Your task to perform on an android device: Go to Amazon Image 0: 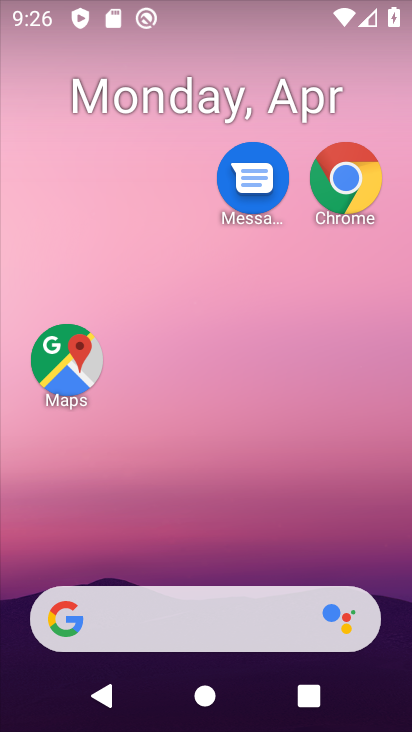
Step 0: click (260, 70)
Your task to perform on an android device: Go to Amazon Image 1: 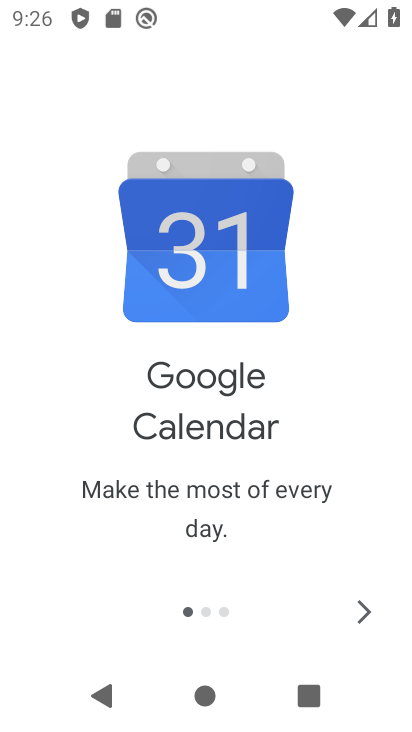
Step 1: click (371, 631)
Your task to perform on an android device: Go to Amazon Image 2: 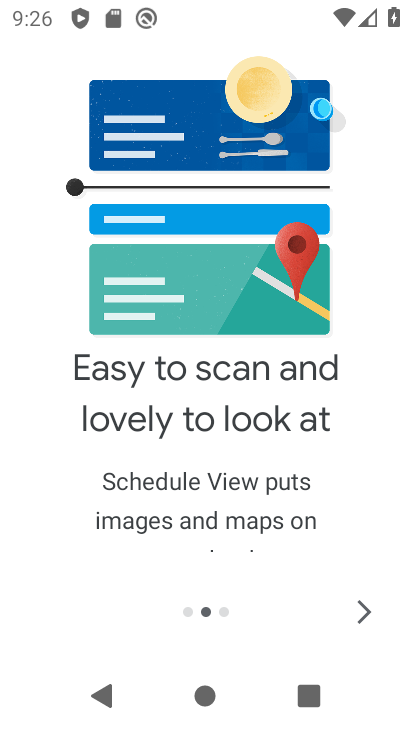
Step 2: click (371, 631)
Your task to perform on an android device: Go to Amazon Image 3: 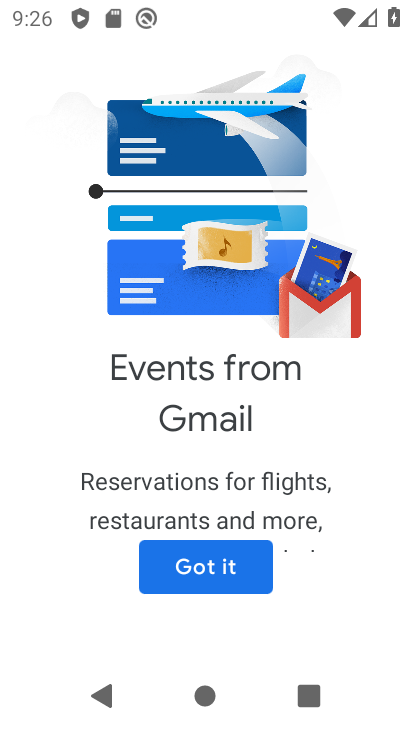
Step 3: click (169, 566)
Your task to perform on an android device: Go to Amazon Image 4: 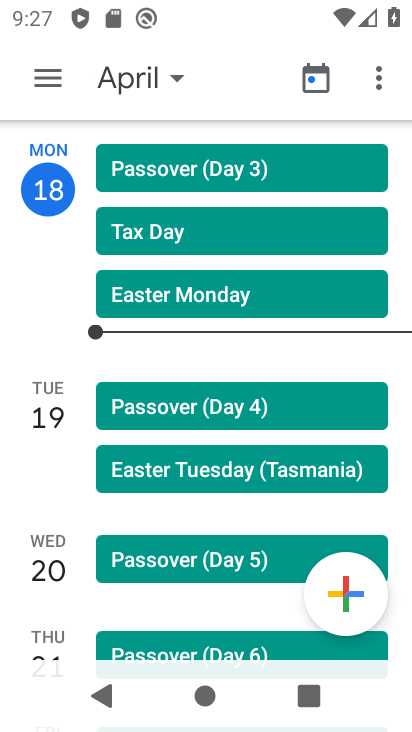
Step 4: press home button
Your task to perform on an android device: Go to Amazon Image 5: 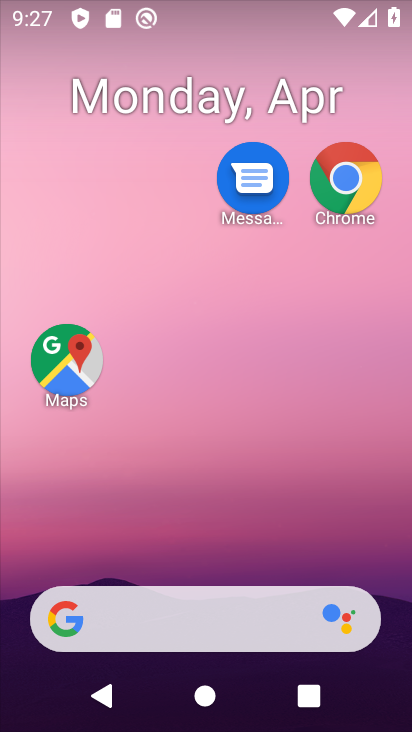
Step 5: drag from (326, 470) to (348, 113)
Your task to perform on an android device: Go to Amazon Image 6: 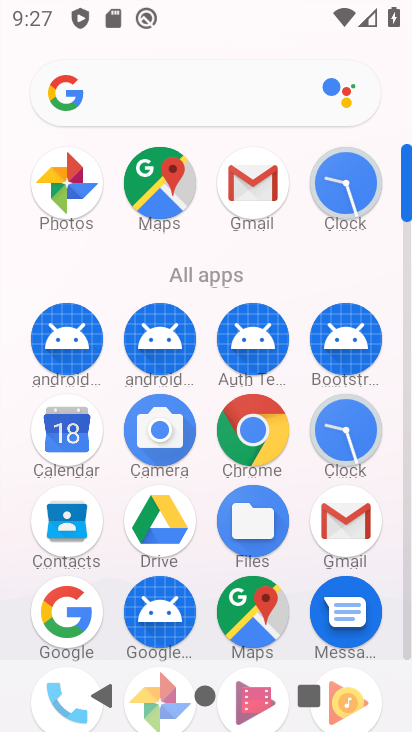
Step 6: drag from (321, 519) to (342, 389)
Your task to perform on an android device: Go to Amazon Image 7: 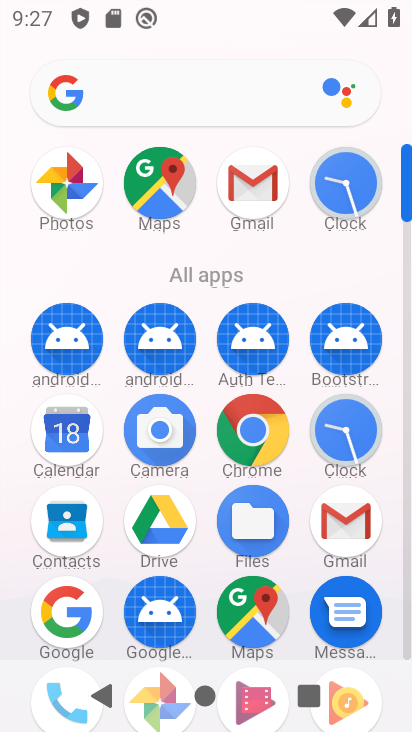
Step 7: click (278, 457)
Your task to perform on an android device: Go to Amazon Image 8: 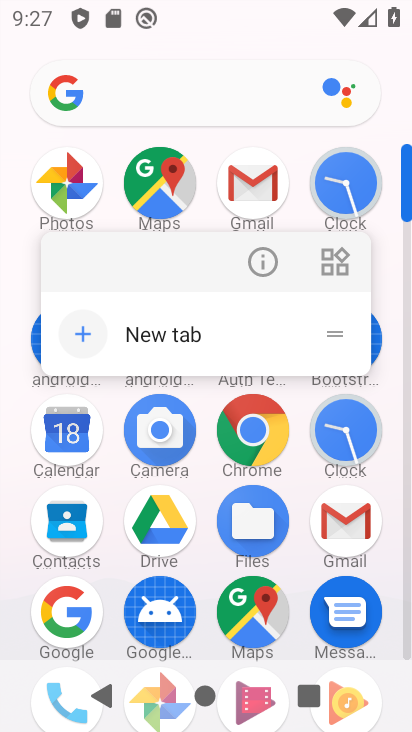
Step 8: click (251, 427)
Your task to perform on an android device: Go to Amazon Image 9: 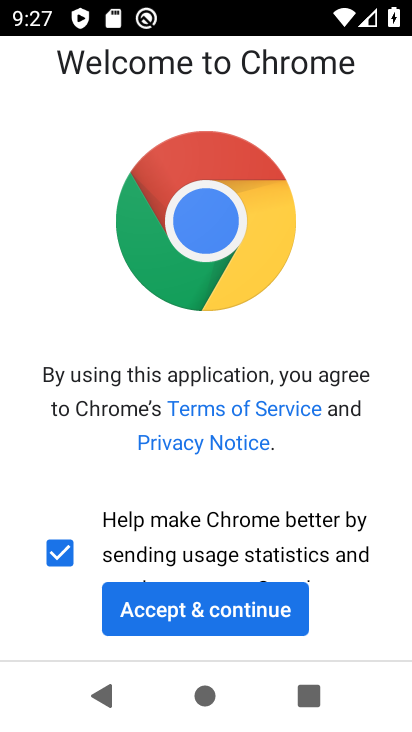
Step 9: click (213, 617)
Your task to perform on an android device: Go to Amazon Image 10: 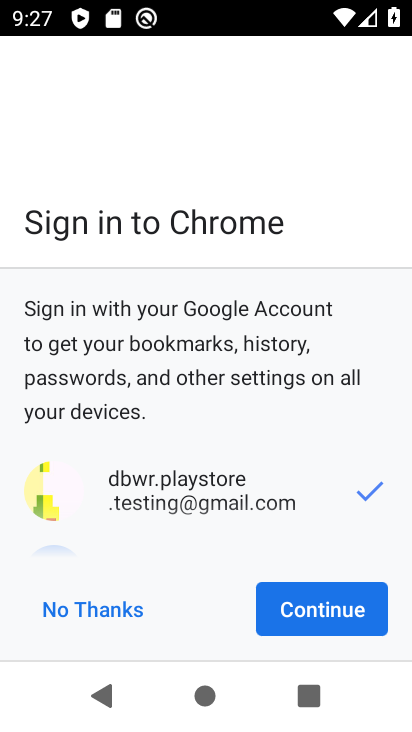
Step 10: click (351, 603)
Your task to perform on an android device: Go to Amazon Image 11: 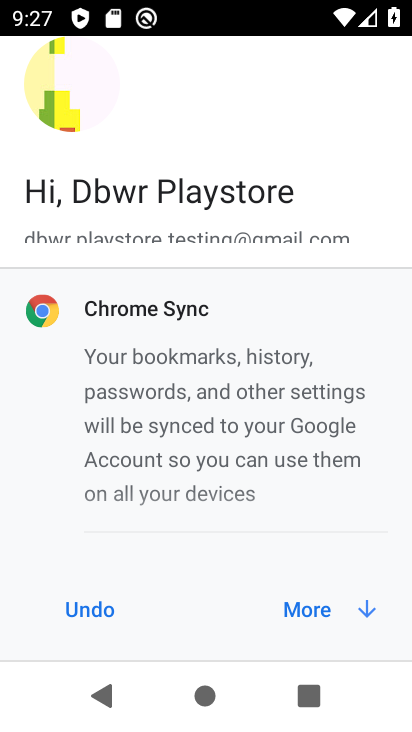
Step 11: click (351, 603)
Your task to perform on an android device: Go to Amazon Image 12: 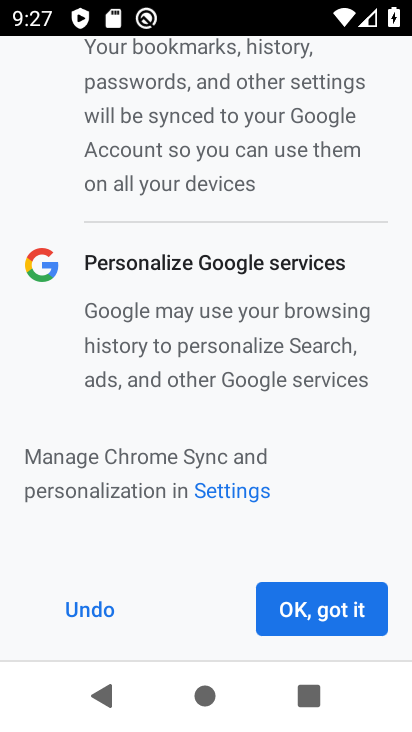
Step 12: click (351, 603)
Your task to perform on an android device: Go to Amazon Image 13: 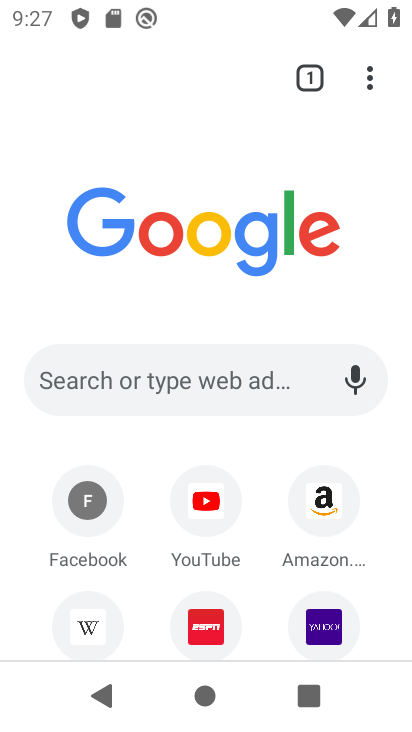
Step 13: click (366, 98)
Your task to perform on an android device: Go to Amazon Image 14: 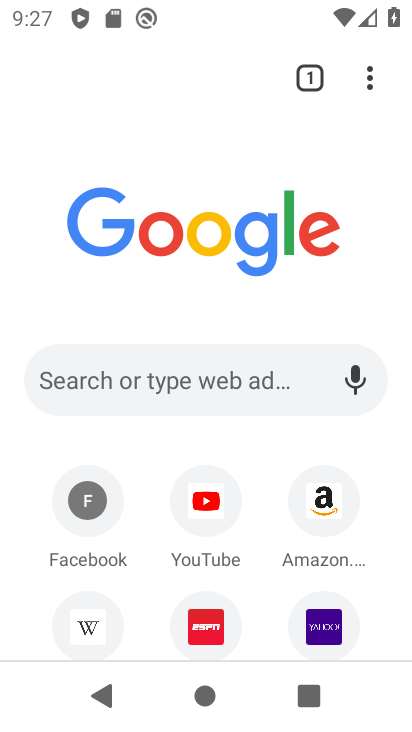
Step 14: click (334, 496)
Your task to perform on an android device: Go to Amazon Image 15: 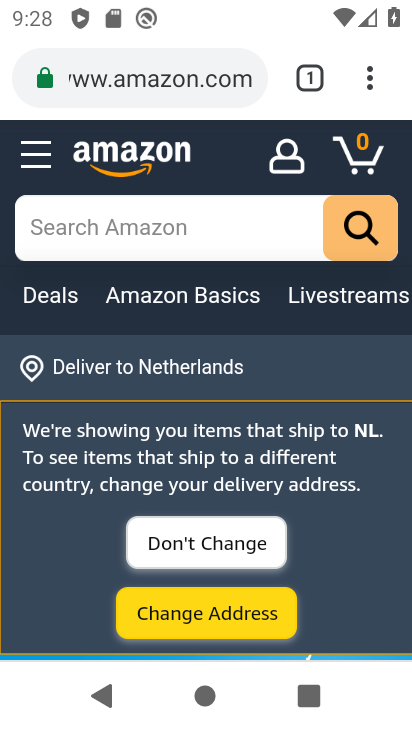
Step 15: task complete